Your task to perform on an android device: Go to internet settings Image 0: 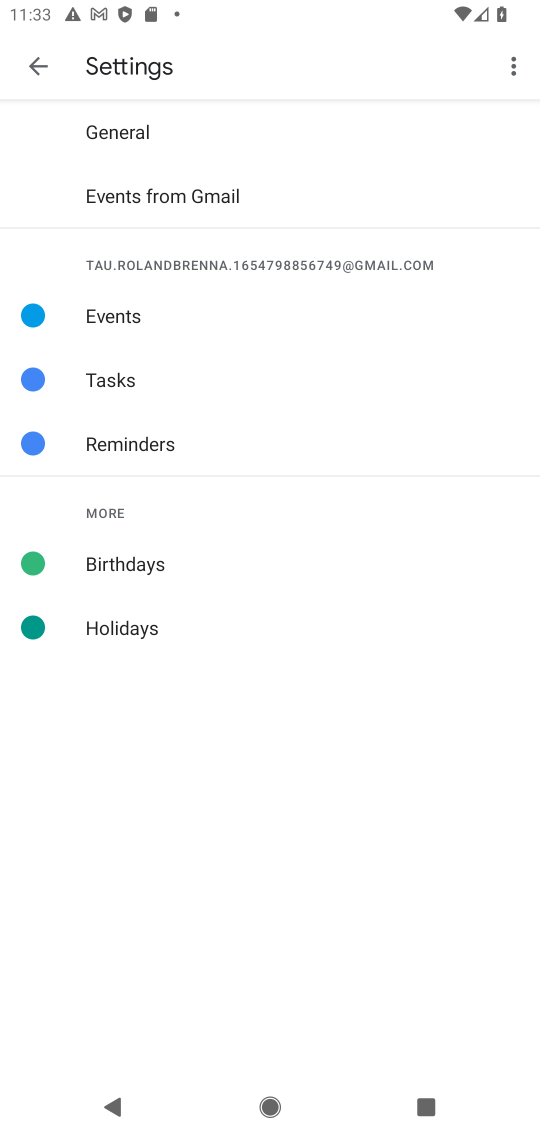
Step 0: drag from (181, 700) to (176, 367)
Your task to perform on an android device: Go to internet settings Image 1: 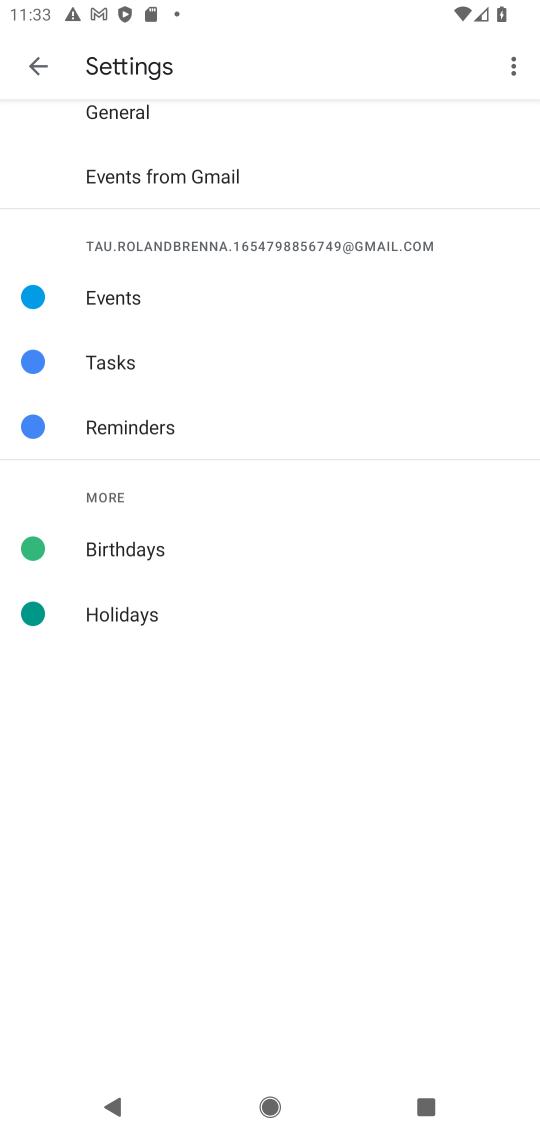
Step 1: drag from (165, 228) to (230, 638)
Your task to perform on an android device: Go to internet settings Image 2: 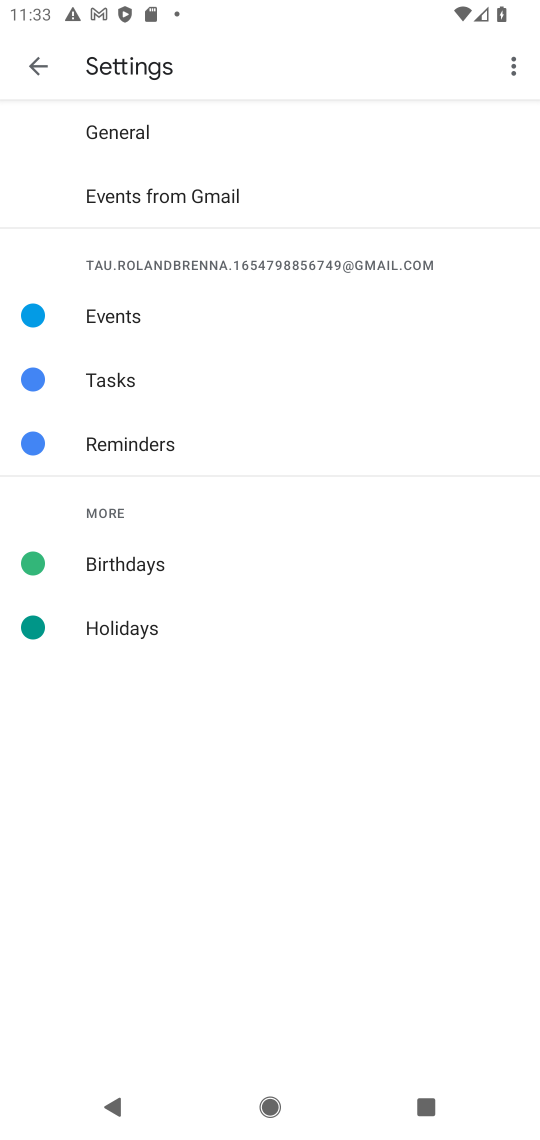
Step 2: press home button
Your task to perform on an android device: Go to internet settings Image 3: 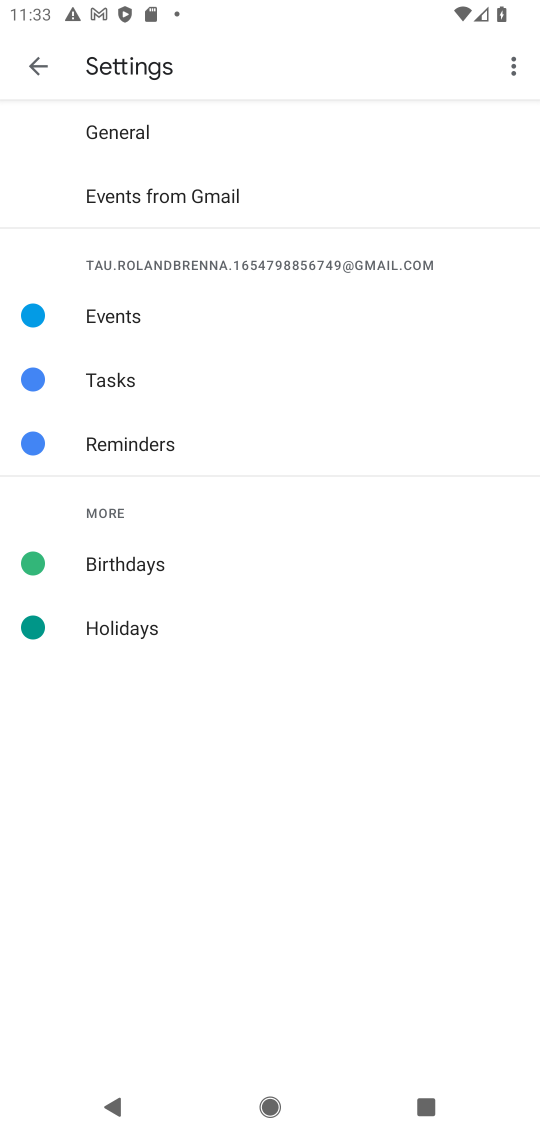
Step 3: drag from (198, 916) to (356, 224)
Your task to perform on an android device: Go to internet settings Image 4: 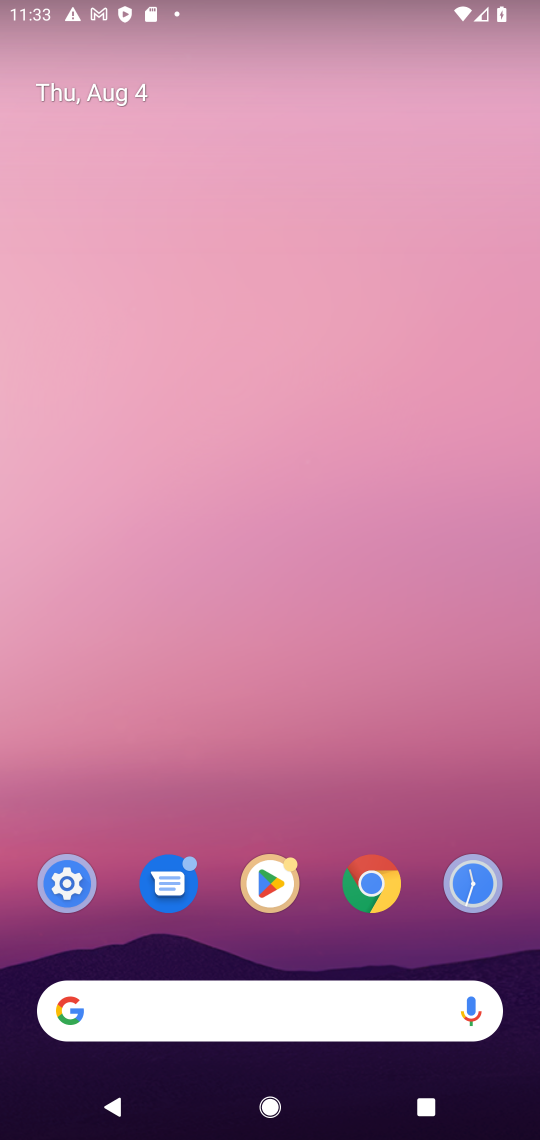
Step 4: drag from (258, 742) to (378, 215)
Your task to perform on an android device: Go to internet settings Image 5: 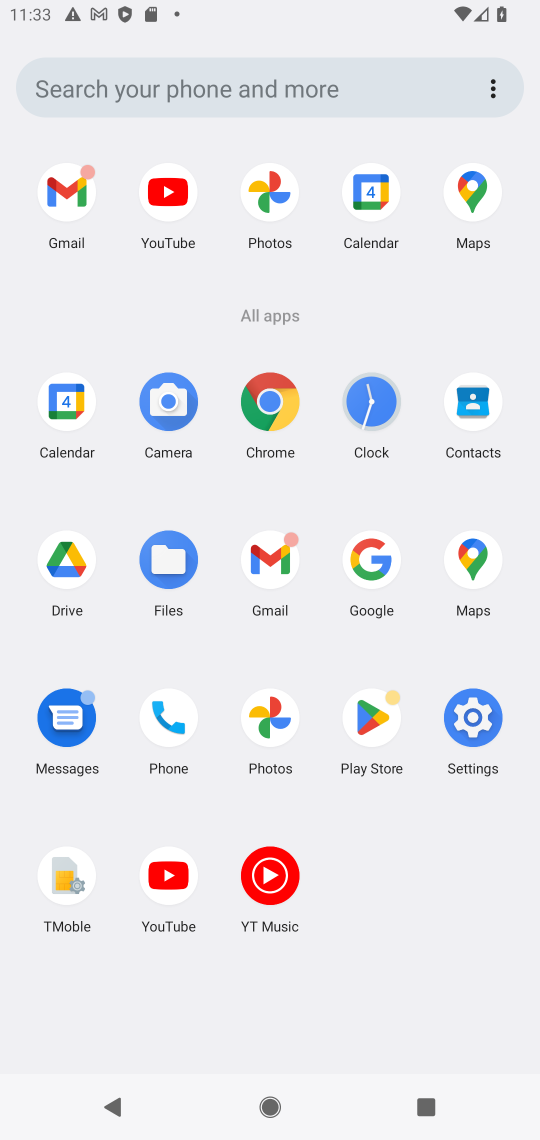
Step 5: click (458, 725)
Your task to perform on an android device: Go to internet settings Image 6: 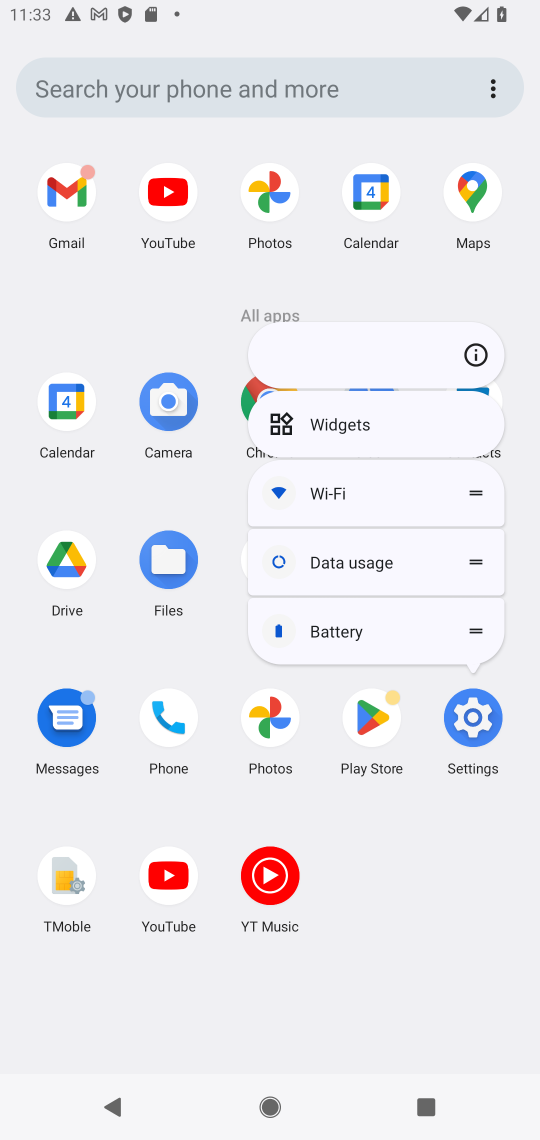
Step 6: click (477, 344)
Your task to perform on an android device: Go to internet settings Image 7: 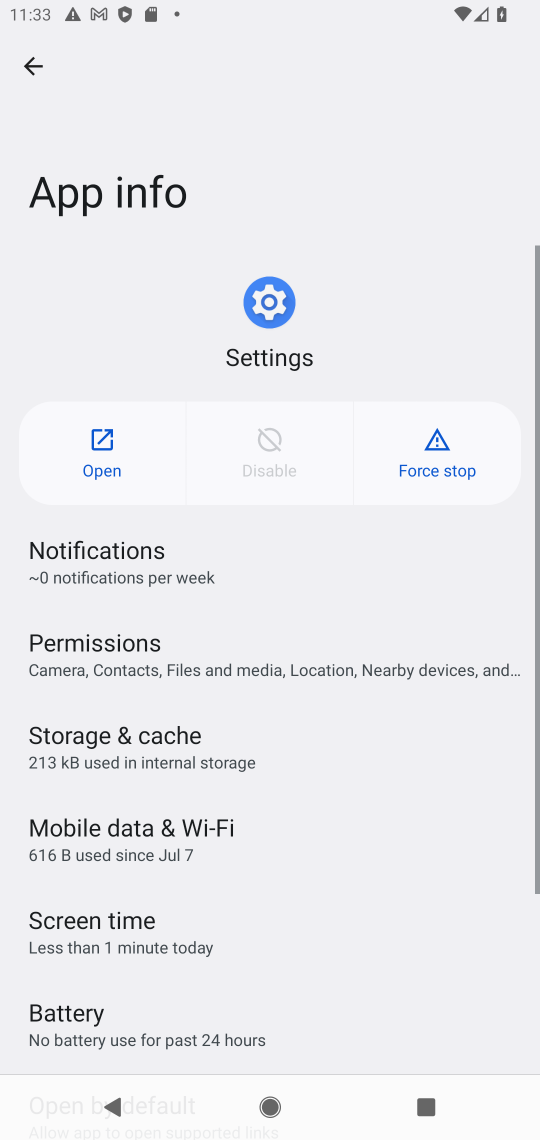
Step 7: click (89, 458)
Your task to perform on an android device: Go to internet settings Image 8: 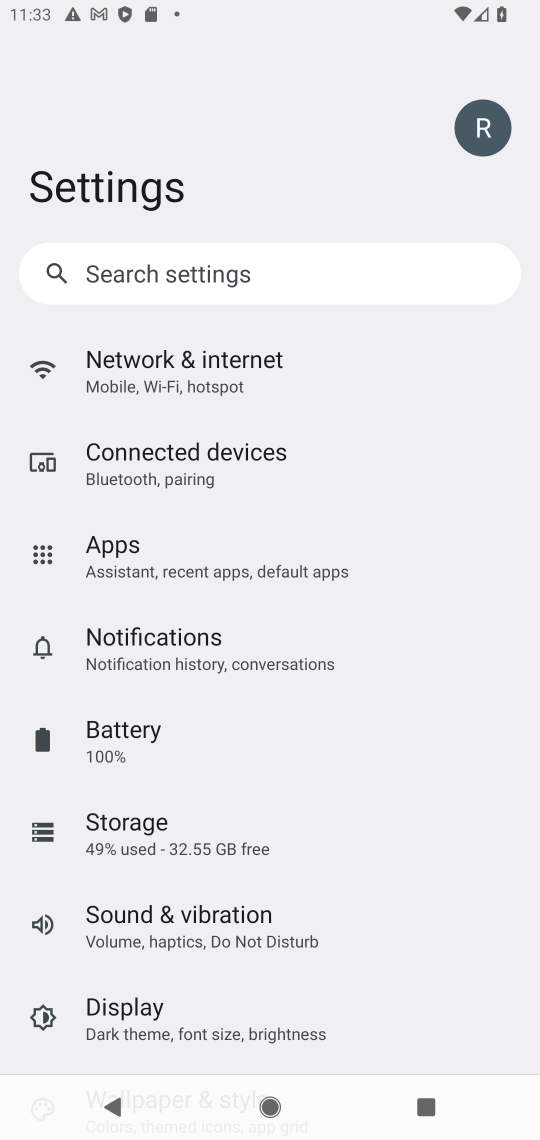
Step 8: click (153, 368)
Your task to perform on an android device: Go to internet settings Image 9: 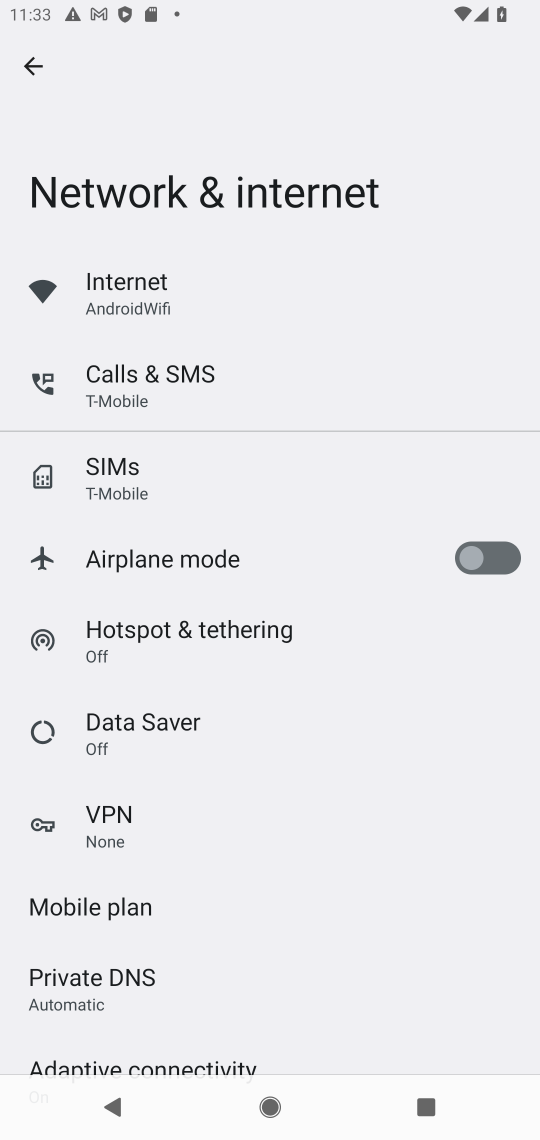
Step 9: click (141, 310)
Your task to perform on an android device: Go to internet settings Image 10: 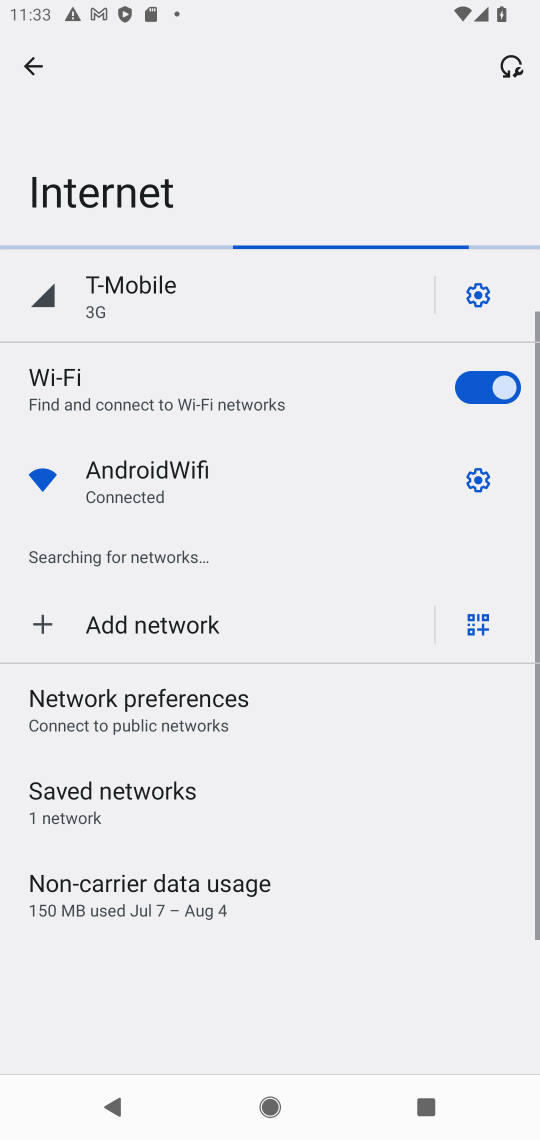
Step 10: drag from (248, 789) to (288, 435)
Your task to perform on an android device: Go to internet settings Image 11: 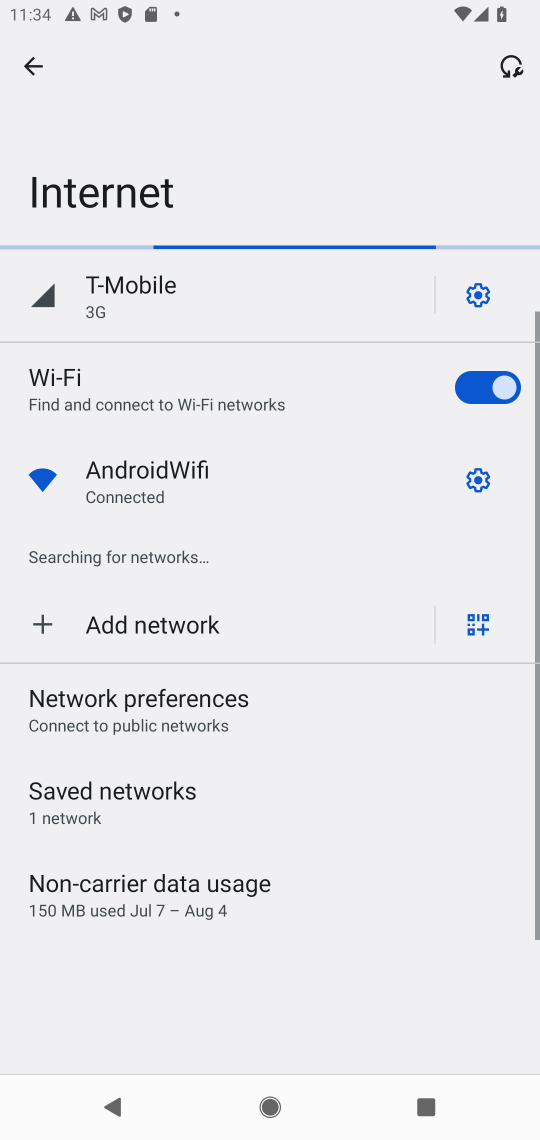
Step 11: click (197, 313)
Your task to perform on an android device: Go to internet settings Image 12: 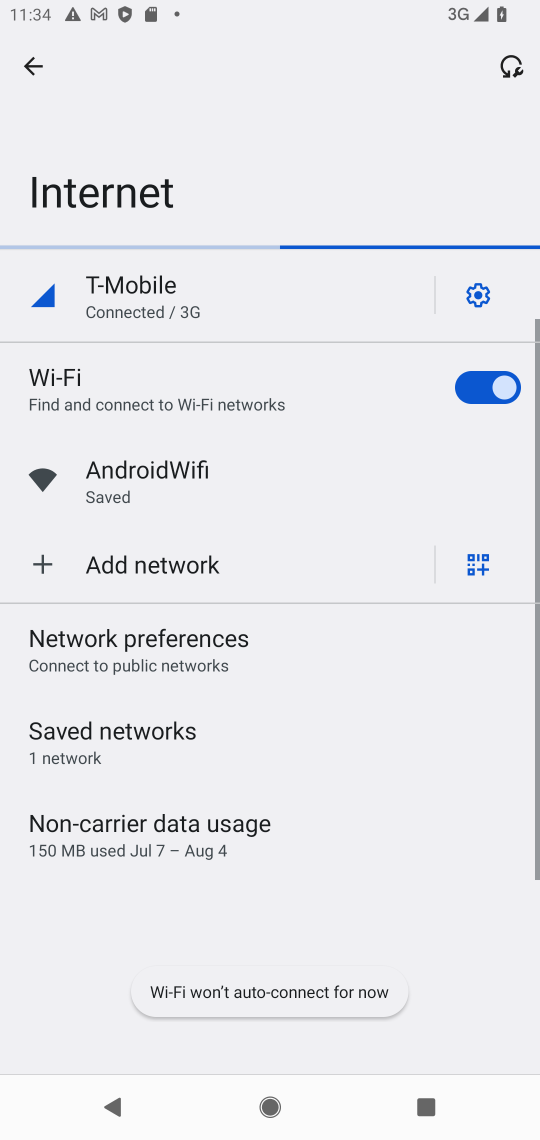
Step 12: drag from (278, 747) to (400, 322)
Your task to perform on an android device: Go to internet settings Image 13: 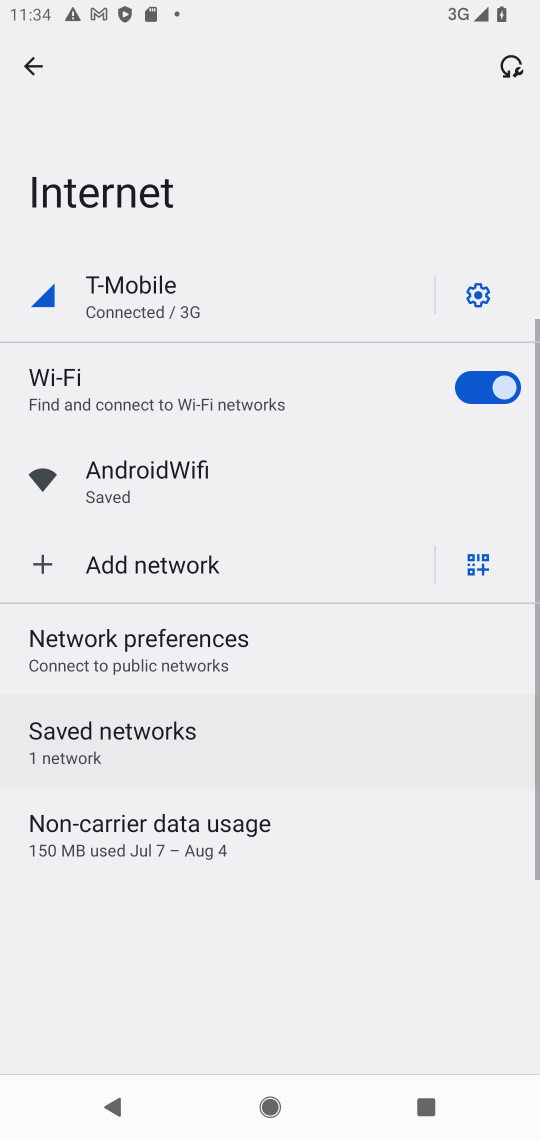
Step 13: drag from (309, 273) to (407, 128)
Your task to perform on an android device: Go to internet settings Image 14: 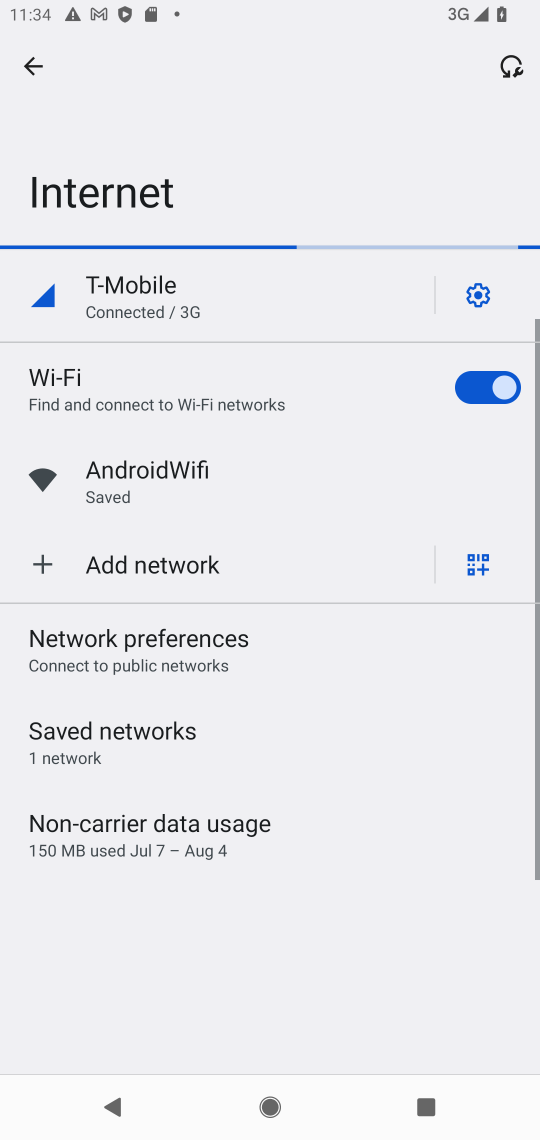
Step 14: click (215, 288)
Your task to perform on an android device: Go to internet settings Image 15: 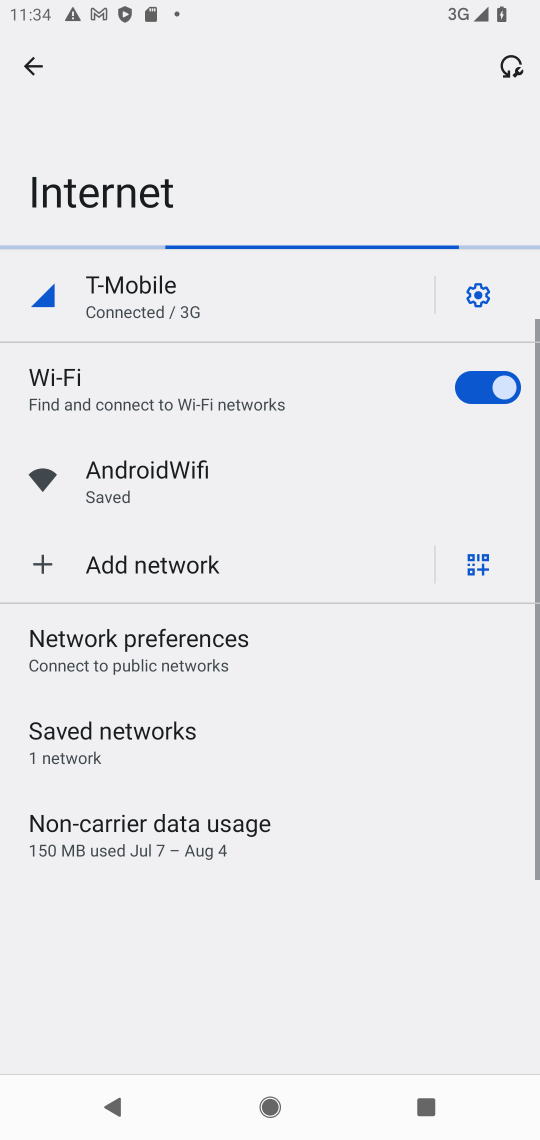
Step 15: click (111, 302)
Your task to perform on an android device: Go to internet settings Image 16: 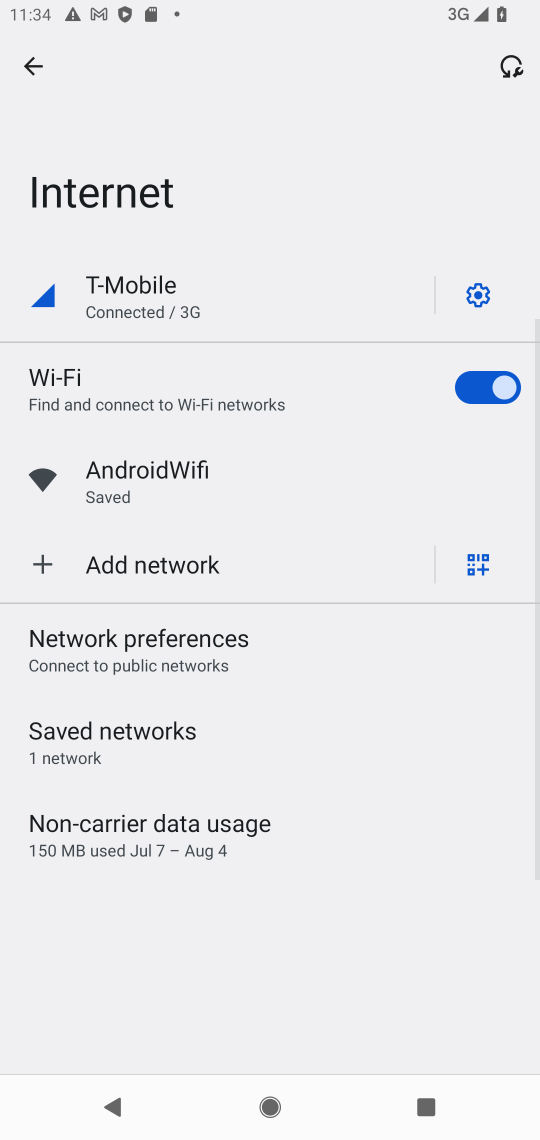
Step 16: click (472, 295)
Your task to perform on an android device: Go to internet settings Image 17: 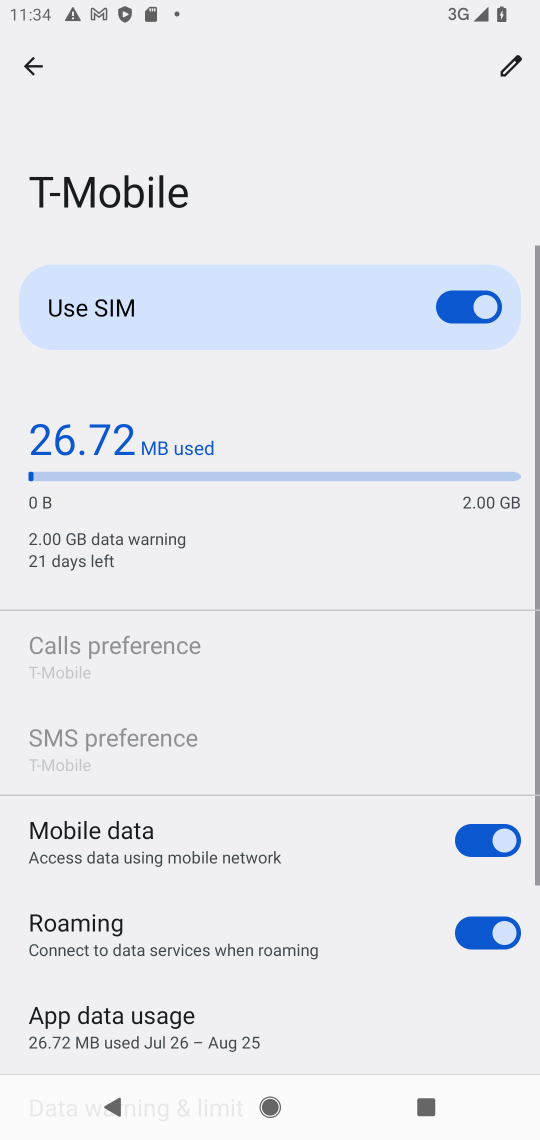
Step 17: task complete